Your task to perform on an android device: turn off javascript in the chrome app Image 0: 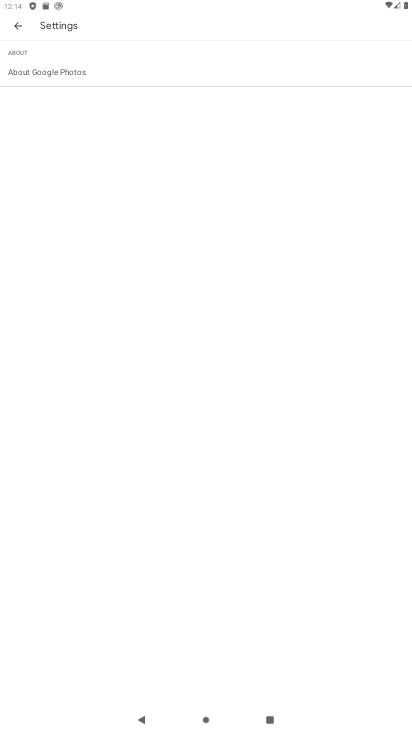
Step 0: press home button
Your task to perform on an android device: turn off javascript in the chrome app Image 1: 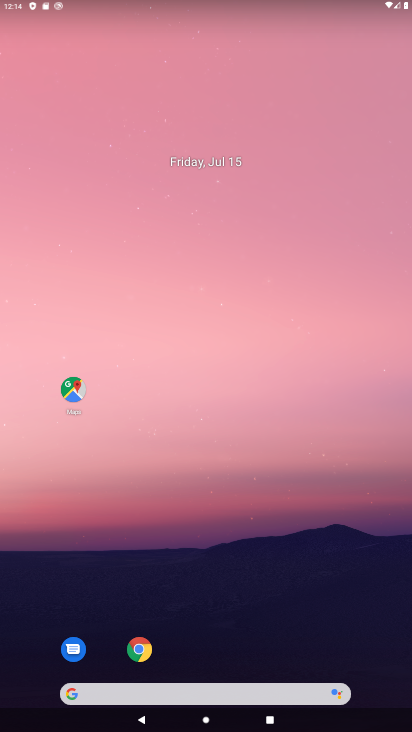
Step 1: drag from (250, 671) to (320, 54)
Your task to perform on an android device: turn off javascript in the chrome app Image 2: 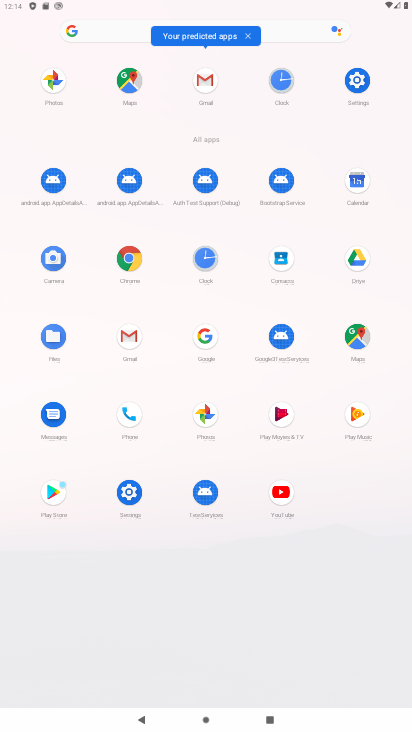
Step 2: click (135, 261)
Your task to perform on an android device: turn off javascript in the chrome app Image 3: 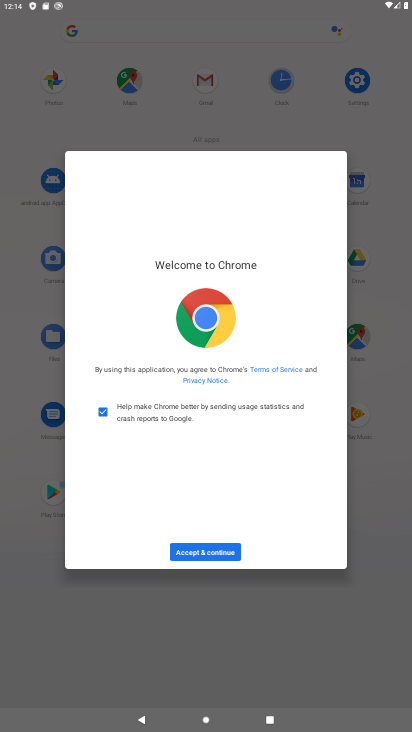
Step 3: click (201, 553)
Your task to perform on an android device: turn off javascript in the chrome app Image 4: 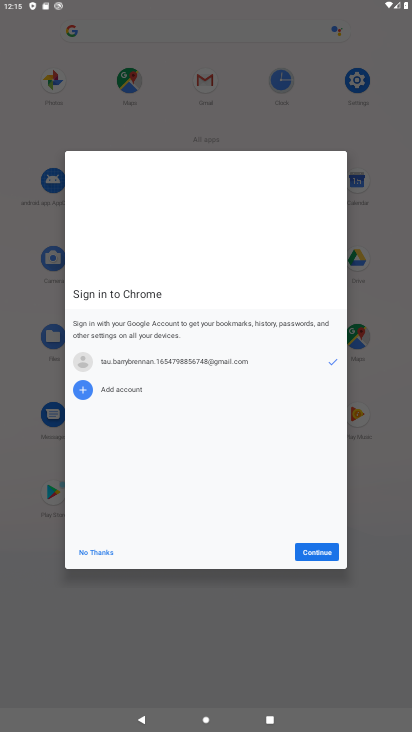
Step 4: click (311, 561)
Your task to perform on an android device: turn off javascript in the chrome app Image 5: 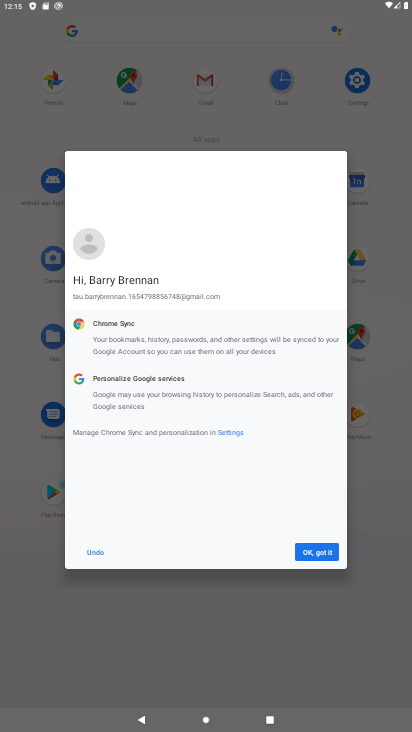
Step 5: click (313, 550)
Your task to perform on an android device: turn off javascript in the chrome app Image 6: 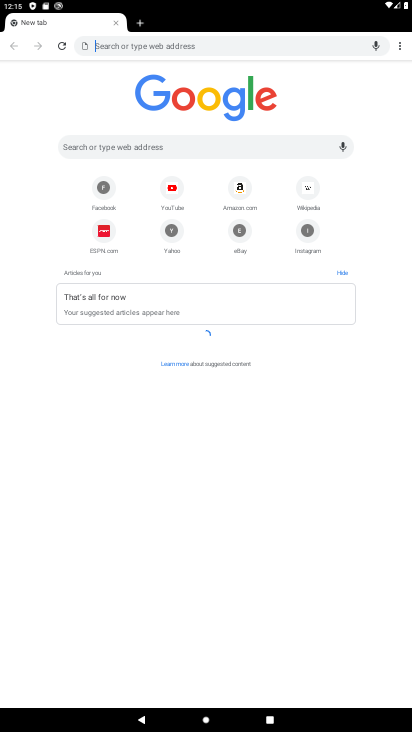
Step 6: drag from (400, 53) to (332, 203)
Your task to perform on an android device: turn off javascript in the chrome app Image 7: 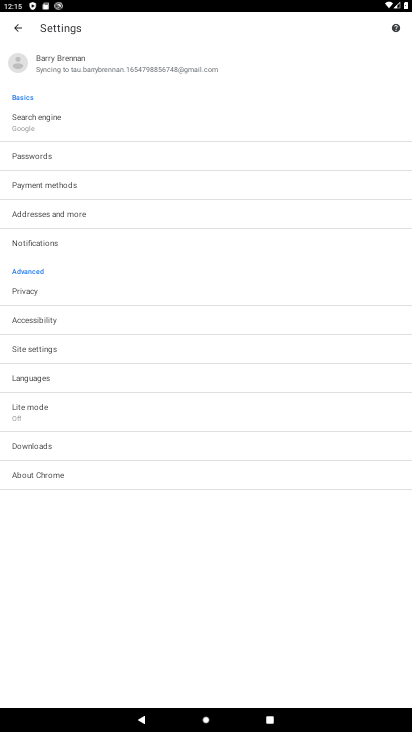
Step 7: click (75, 348)
Your task to perform on an android device: turn off javascript in the chrome app Image 8: 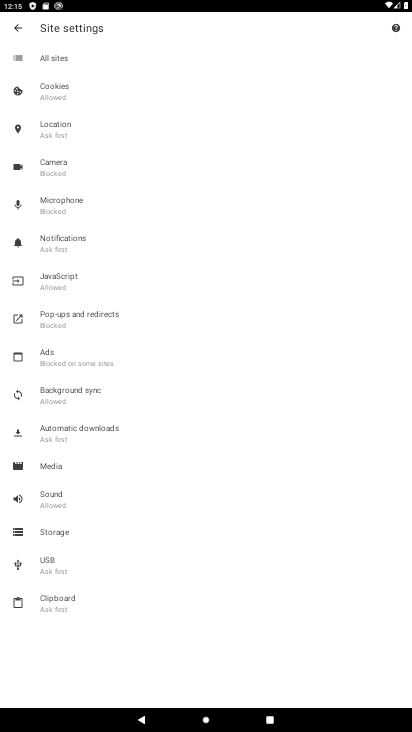
Step 8: click (119, 286)
Your task to perform on an android device: turn off javascript in the chrome app Image 9: 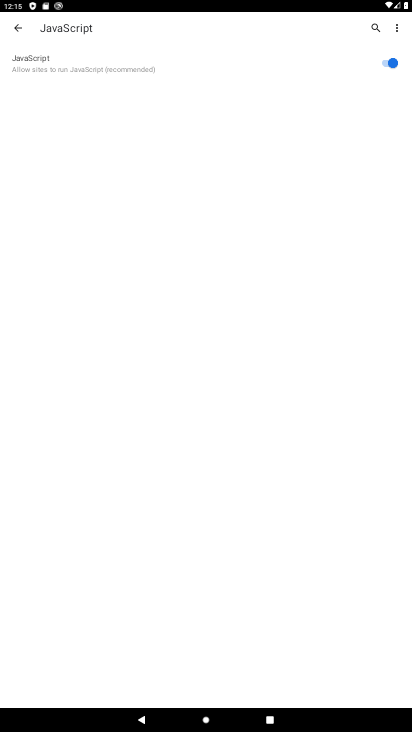
Step 9: click (381, 64)
Your task to perform on an android device: turn off javascript in the chrome app Image 10: 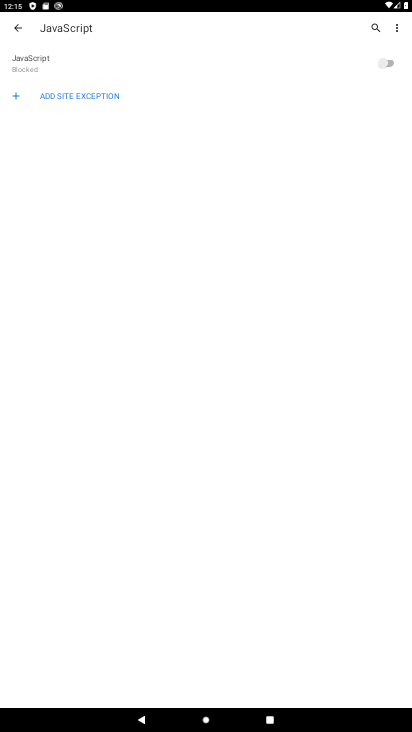
Step 10: task complete